Your task to perform on an android device: check storage Image 0: 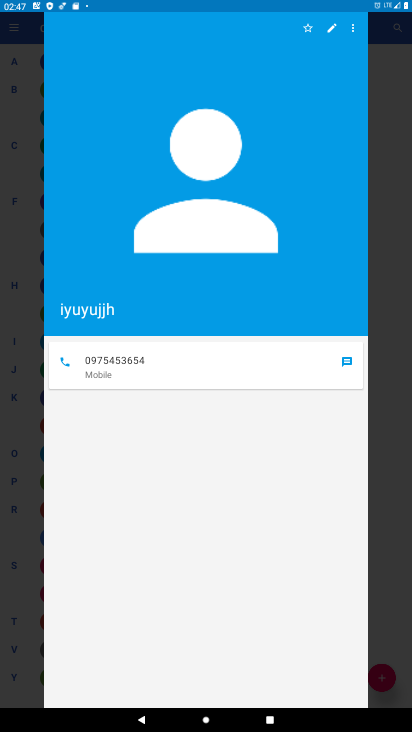
Step 0: press home button
Your task to perform on an android device: check storage Image 1: 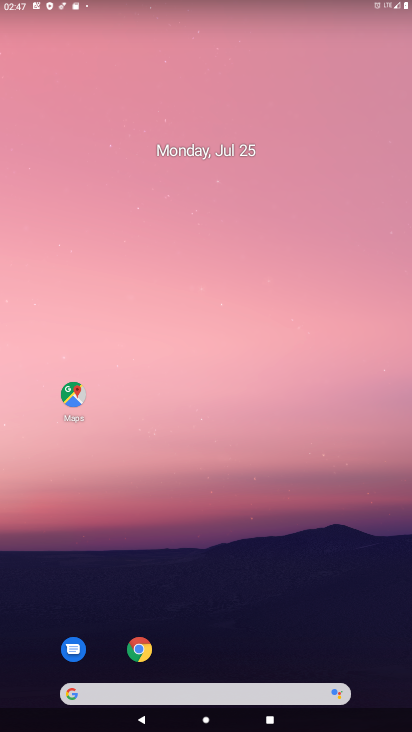
Step 1: drag from (6, 268) to (392, 324)
Your task to perform on an android device: check storage Image 2: 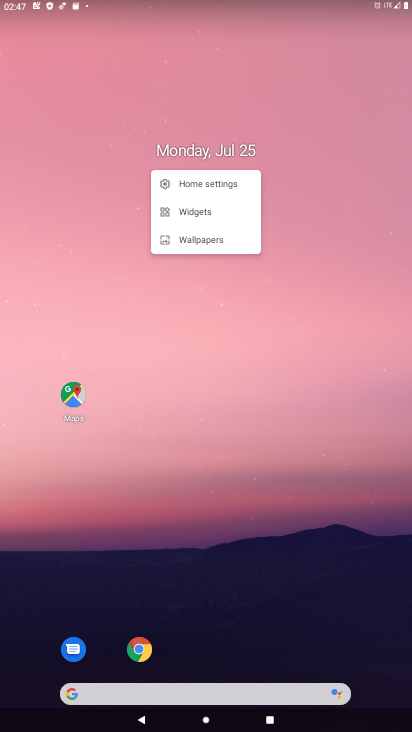
Step 2: drag from (308, 622) to (284, 57)
Your task to perform on an android device: check storage Image 3: 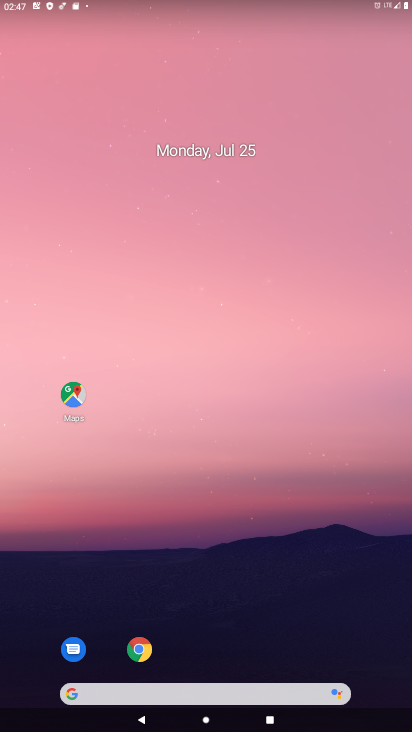
Step 3: drag from (370, 689) to (306, 121)
Your task to perform on an android device: check storage Image 4: 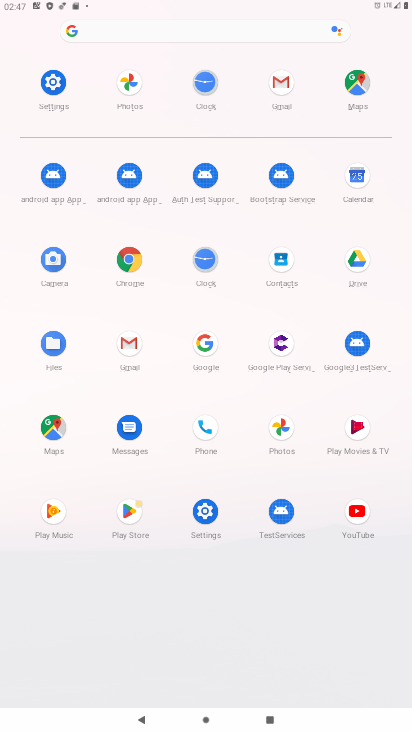
Step 4: click (205, 514)
Your task to perform on an android device: check storage Image 5: 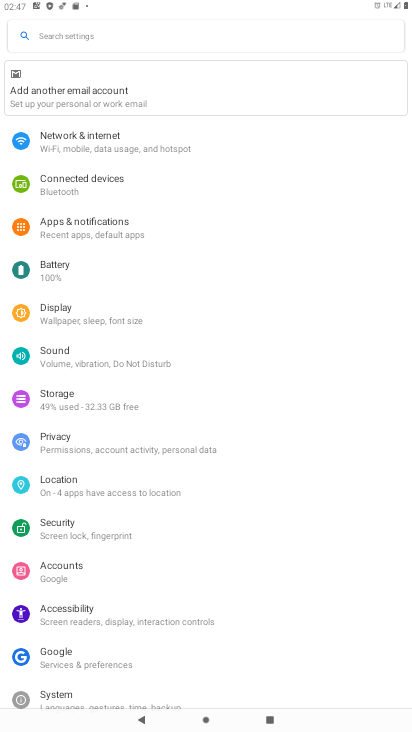
Step 5: click (58, 393)
Your task to perform on an android device: check storage Image 6: 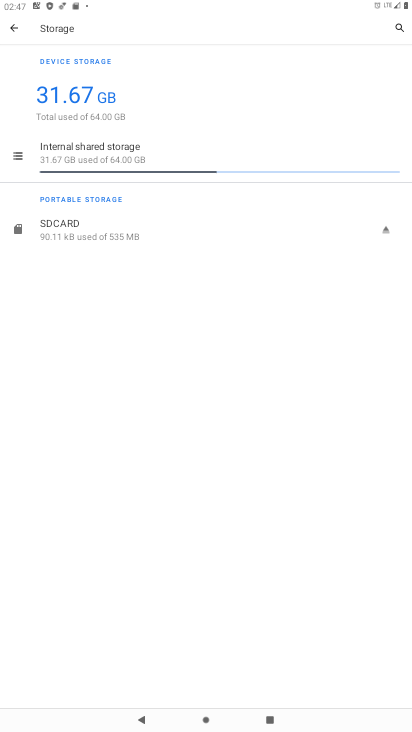
Step 6: task complete